Your task to perform on an android device: delete a single message in the gmail app Image 0: 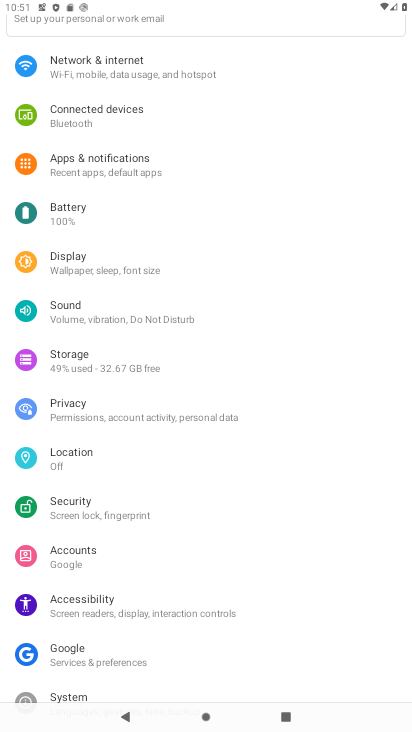
Step 0: press home button
Your task to perform on an android device: delete a single message in the gmail app Image 1: 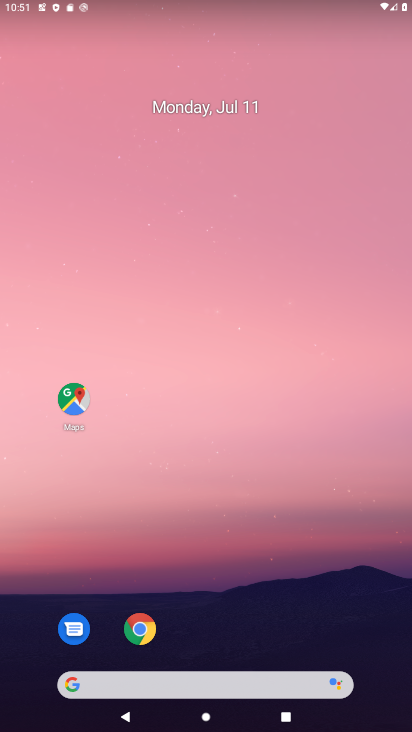
Step 1: drag from (184, 602) to (179, 185)
Your task to perform on an android device: delete a single message in the gmail app Image 2: 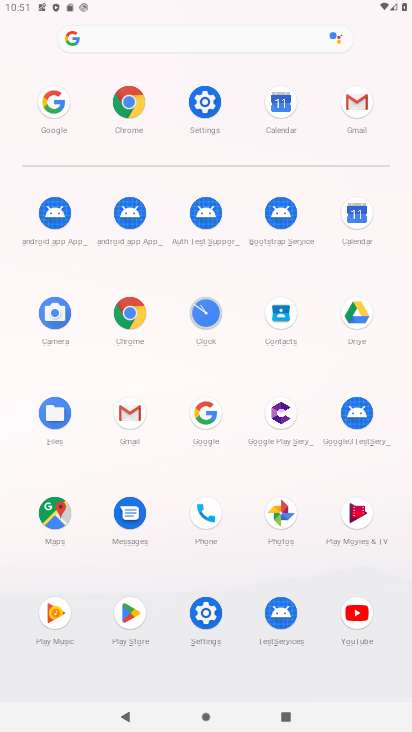
Step 2: click (371, 114)
Your task to perform on an android device: delete a single message in the gmail app Image 3: 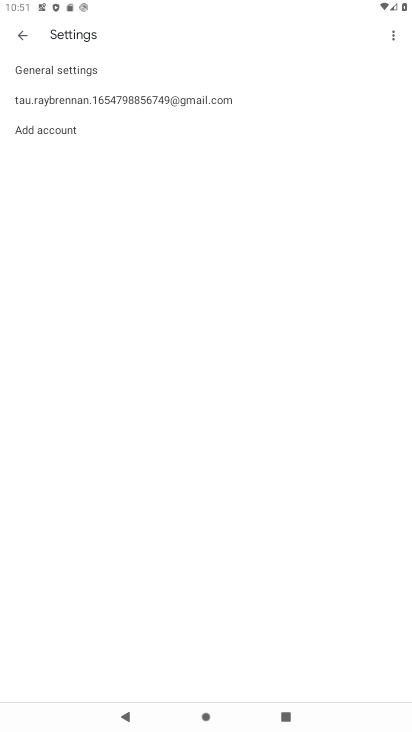
Step 3: click (16, 35)
Your task to perform on an android device: delete a single message in the gmail app Image 4: 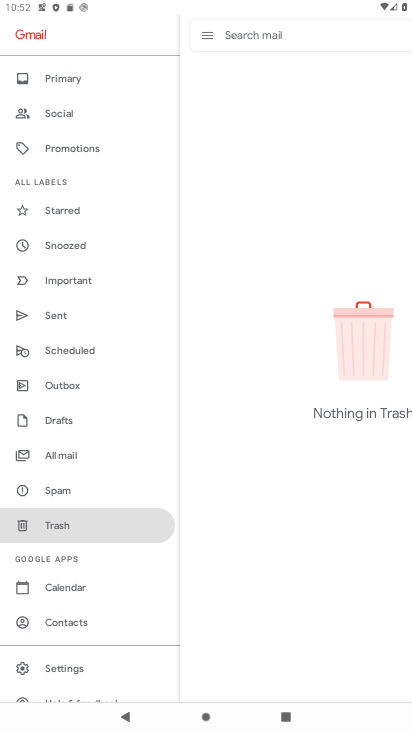
Step 4: click (66, 459)
Your task to perform on an android device: delete a single message in the gmail app Image 5: 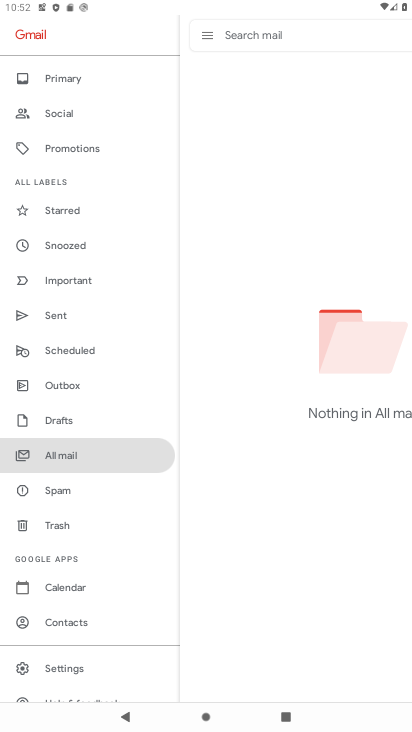
Step 5: task complete